Your task to perform on an android device: search for starred emails in the gmail app Image 0: 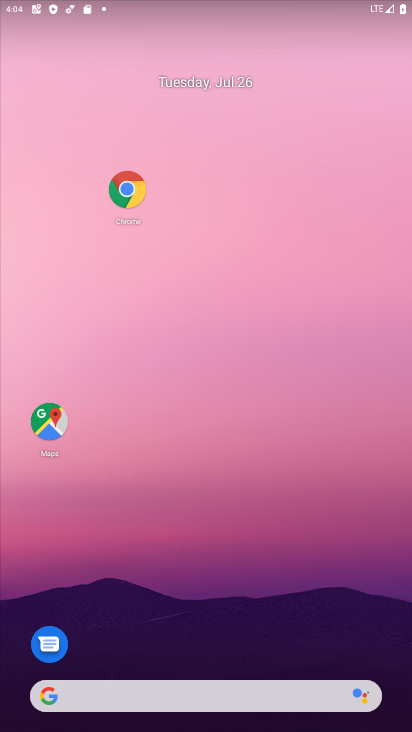
Step 0: drag from (212, 684) to (156, 217)
Your task to perform on an android device: search for starred emails in the gmail app Image 1: 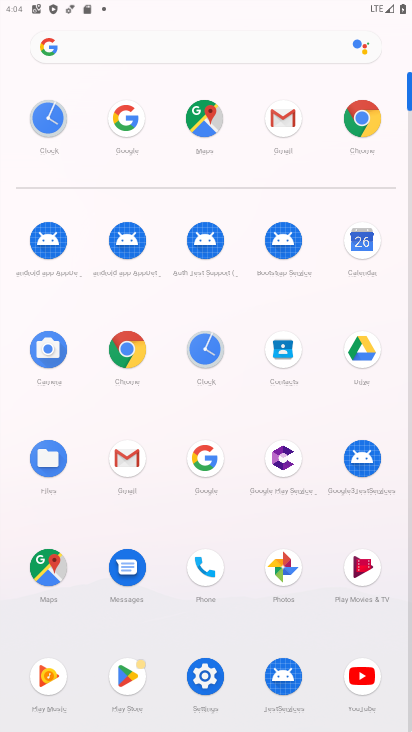
Step 1: click (275, 118)
Your task to perform on an android device: search for starred emails in the gmail app Image 2: 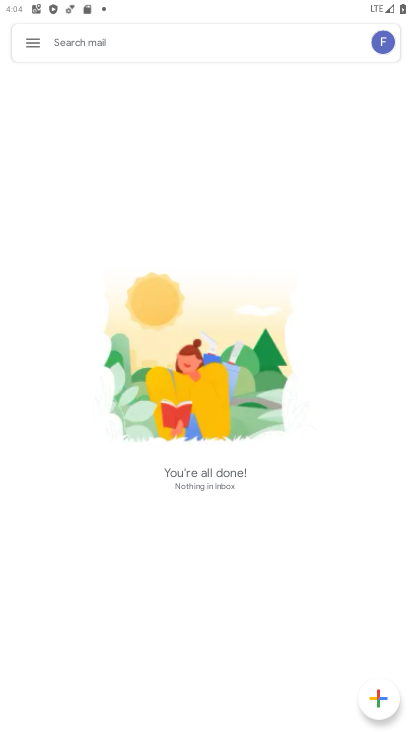
Step 2: click (34, 35)
Your task to perform on an android device: search for starred emails in the gmail app Image 3: 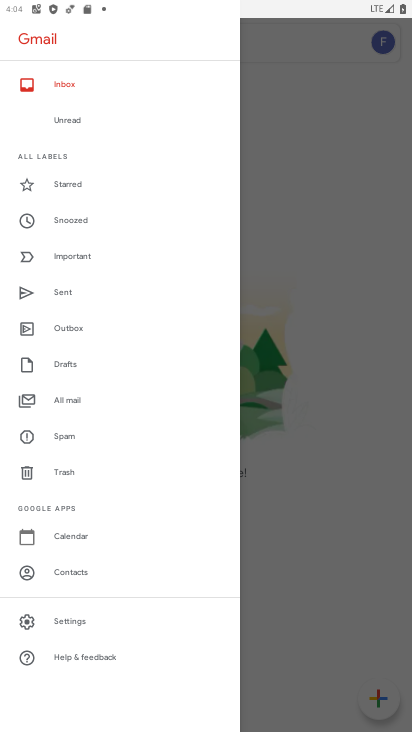
Step 3: click (61, 178)
Your task to perform on an android device: search for starred emails in the gmail app Image 4: 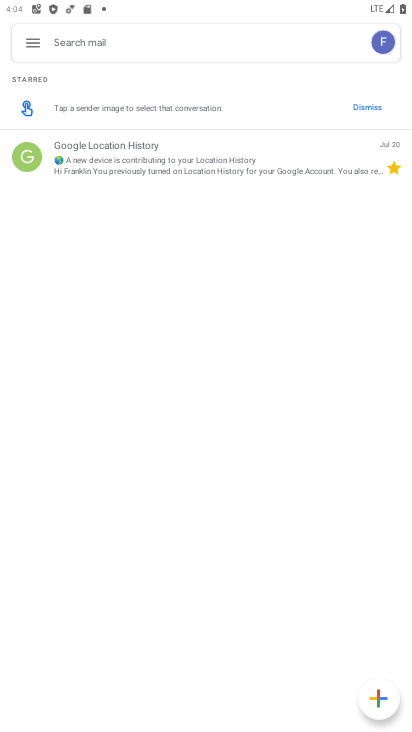
Step 4: task complete